Your task to perform on an android device: Open calendar and show me the third week of next month Image 0: 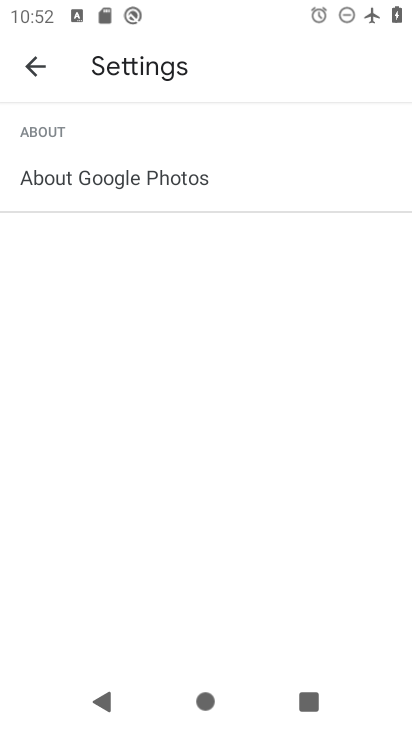
Step 0: press home button
Your task to perform on an android device: Open calendar and show me the third week of next month Image 1: 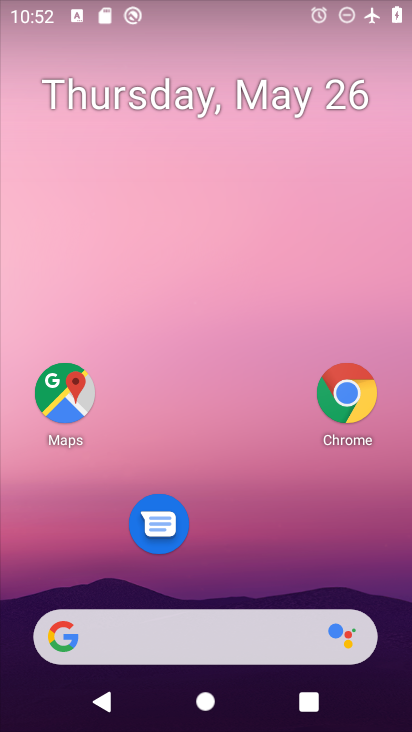
Step 1: drag from (232, 524) to (212, 58)
Your task to perform on an android device: Open calendar and show me the third week of next month Image 2: 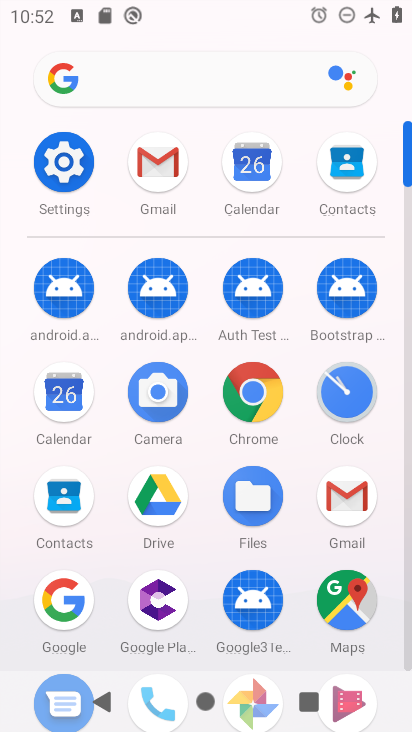
Step 2: click (261, 159)
Your task to perform on an android device: Open calendar and show me the third week of next month Image 3: 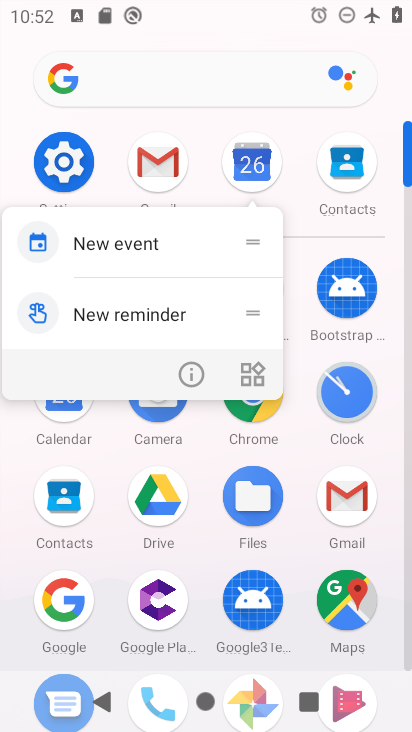
Step 3: click (261, 158)
Your task to perform on an android device: Open calendar and show me the third week of next month Image 4: 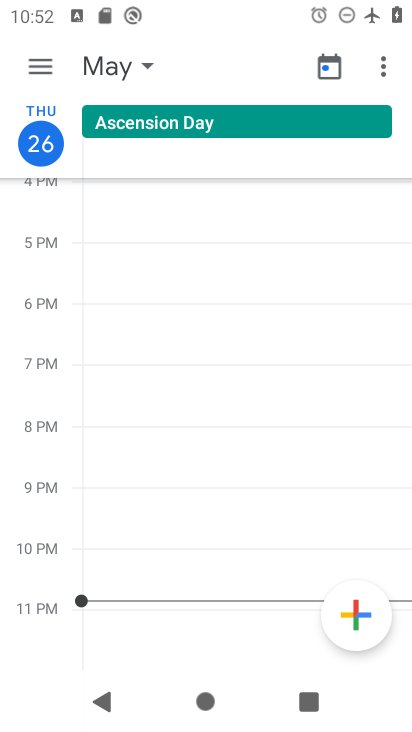
Step 4: click (43, 67)
Your task to perform on an android device: Open calendar and show me the third week of next month Image 5: 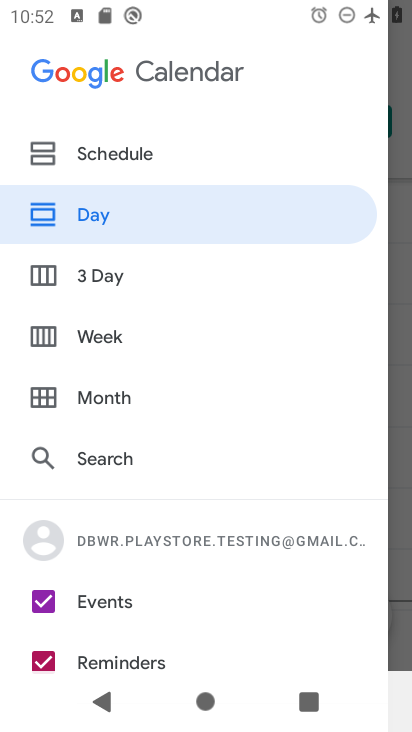
Step 5: click (46, 332)
Your task to perform on an android device: Open calendar and show me the third week of next month Image 6: 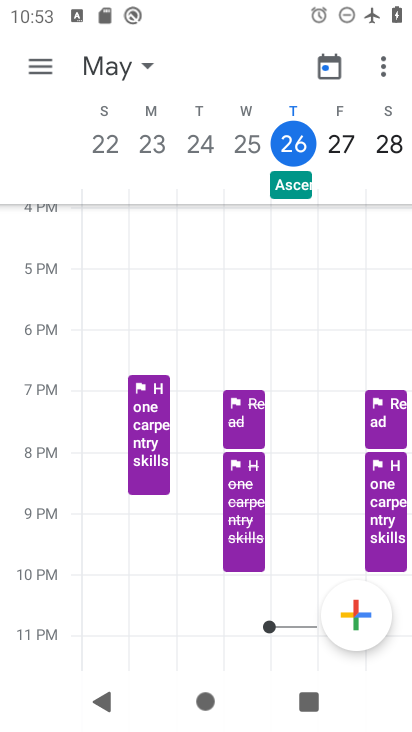
Step 6: task complete